Your task to perform on an android device: turn off location history Image 0: 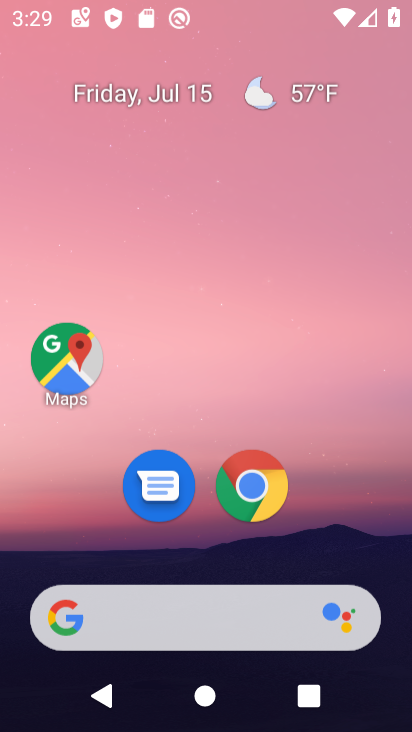
Step 0: press home button
Your task to perform on an android device: turn off location history Image 1: 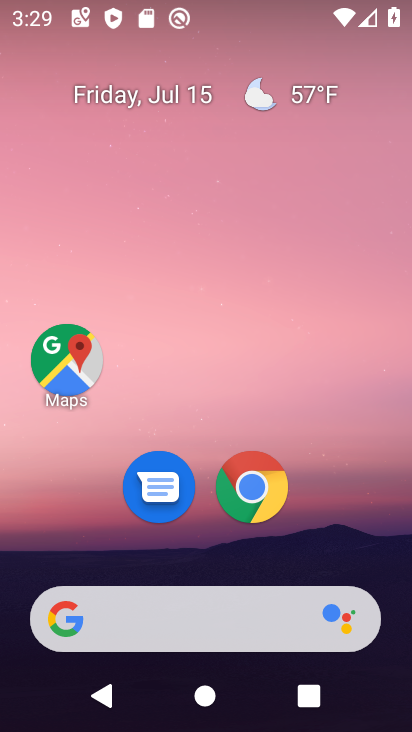
Step 1: drag from (196, 360) to (240, 149)
Your task to perform on an android device: turn off location history Image 2: 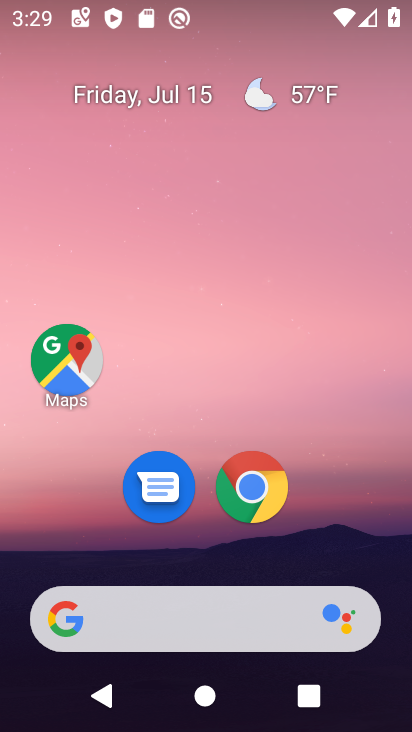
Step 2: drag from (125, 597) to (249, 228)
Your task to perform on an android device: turn off location history Image 3: 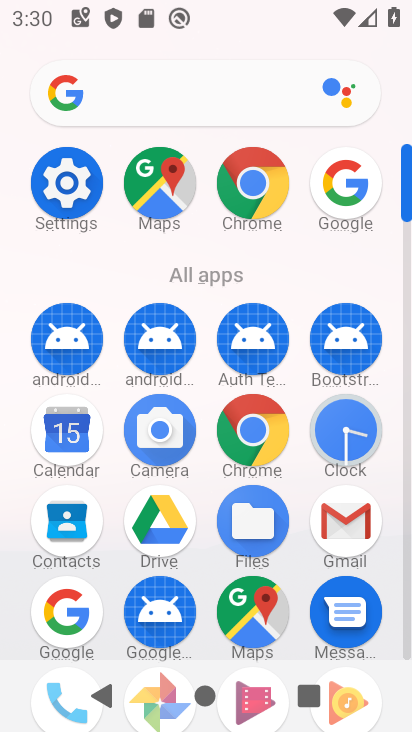
Step 3: click (73, 194)
Your task to perform on an android device: turn off location history Image 4: 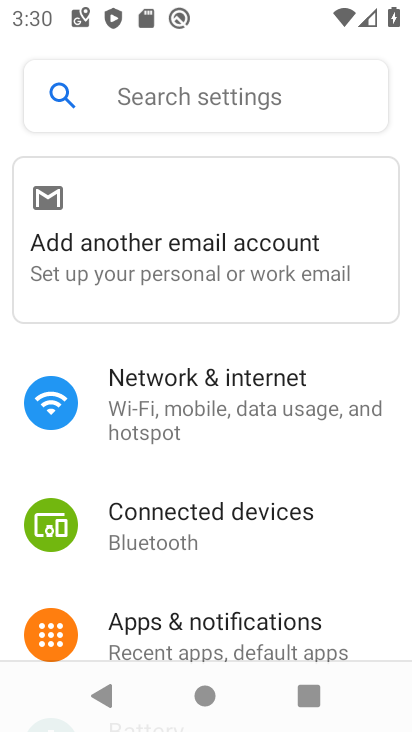
Step 4: drag from (284, 589) to (312, 209)
Your task to perform on an android device: turn off location history Image 5: 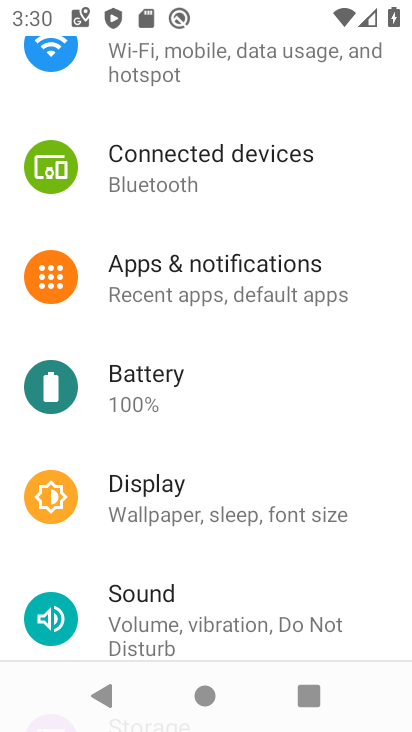
Step 5: drag from (157, 514) to (234, 150)
Your task to perform on an android device: turn off location history Image 6: 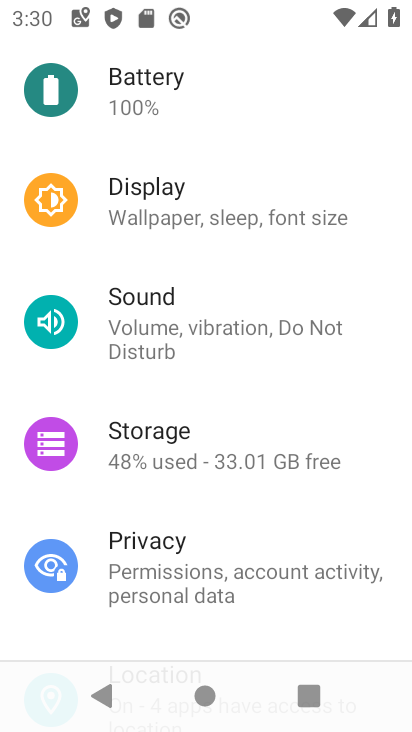
Step 6: drag from (185, 532) to (223, 306)
Your task to perform on an android device: turn off location history Image 7: 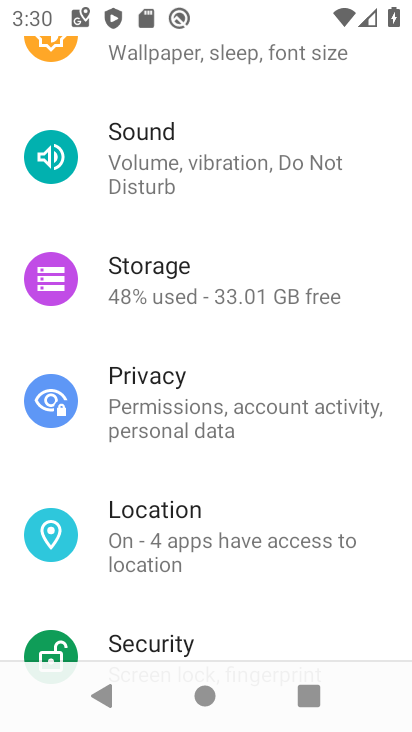
Step 7: click (190, 530)
Your task to perform on an android device: turn off location history Image 8: 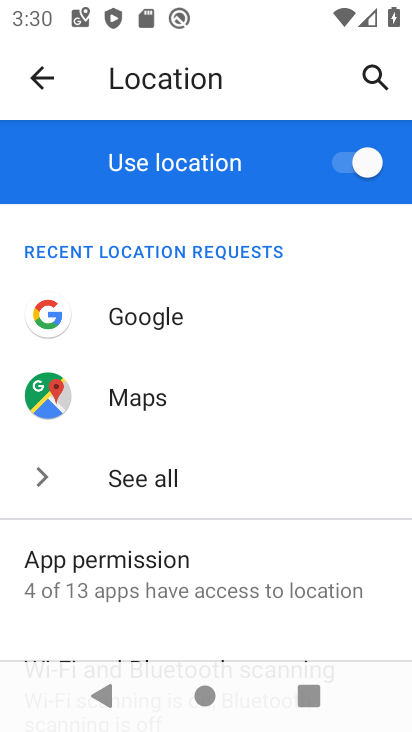
Step 8: drag from (218, 574) to (227, 158)
Your task to perform on an android device: turn off location history Image 9: 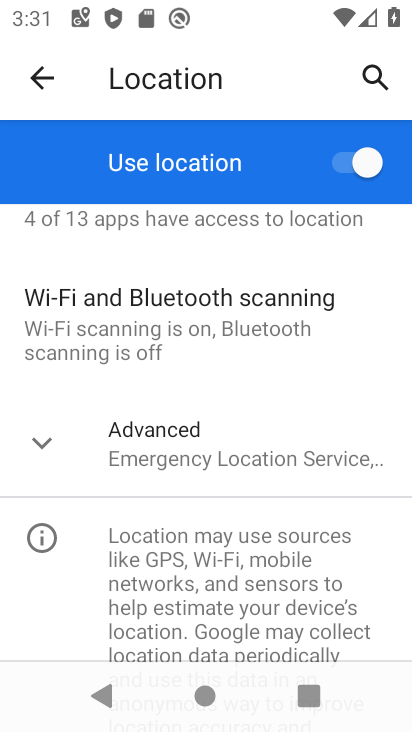
Step 9: click (211, 452)
Your task to perform on an android device: turn off location history Image 10: 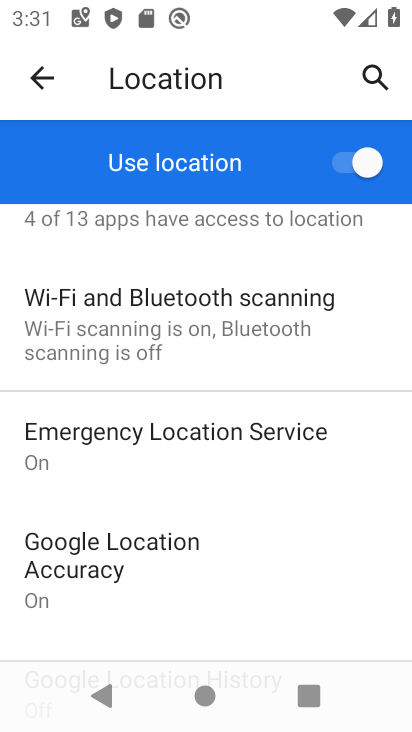
Step 10: drag from (182, 520) to (237, 297)
Your task to perform on an android device: turn off location history Image 11: 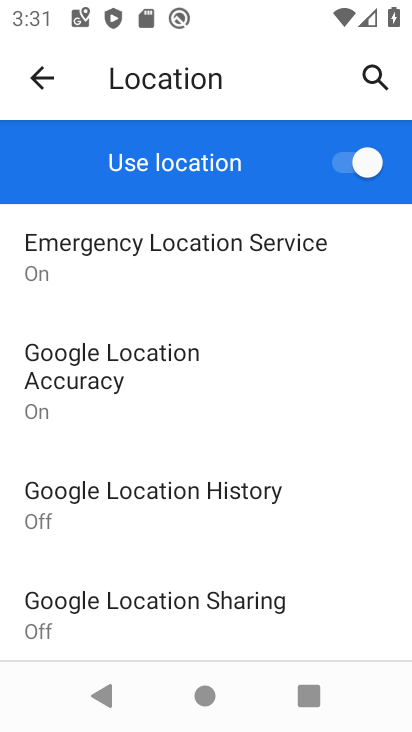
Step 11: click (197, 531)
Your task to perform on an android device: turn off location history Image 12: 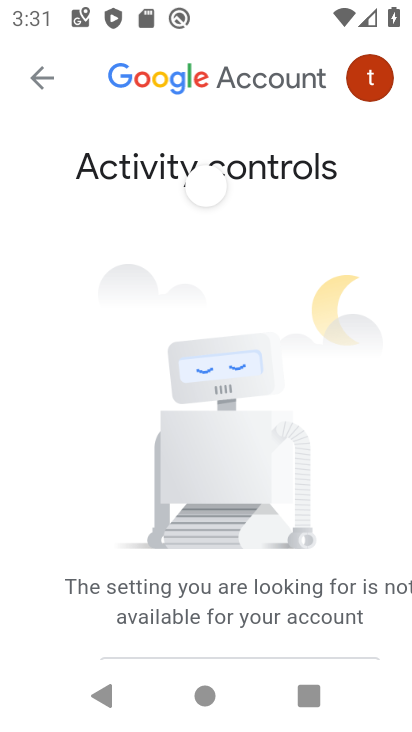
Step 12: task complete